Your task to perform on an android device: What is the news today? Image 0: 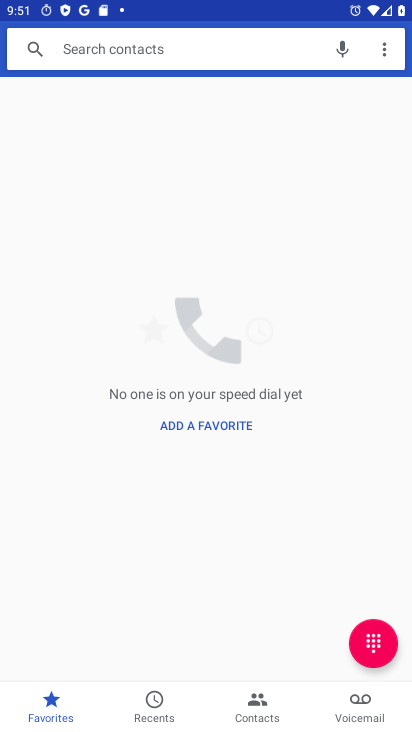
Step 0: press home button
Your task to perform on an android device: What is the news today? Image 1: 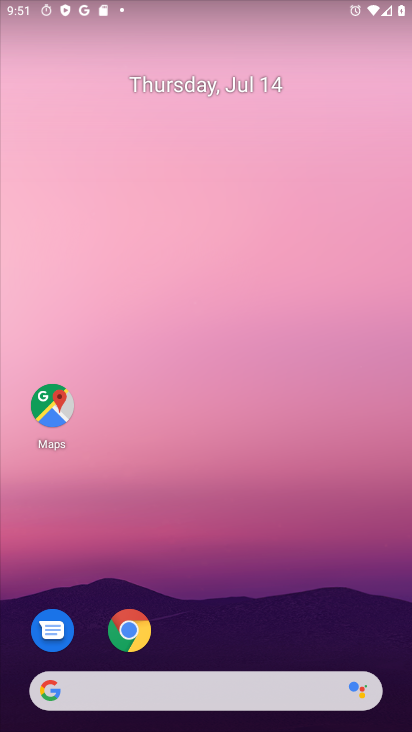
Step 1: click (130, 686)
Your task to perform on an android device: What is the news today? Image 2: 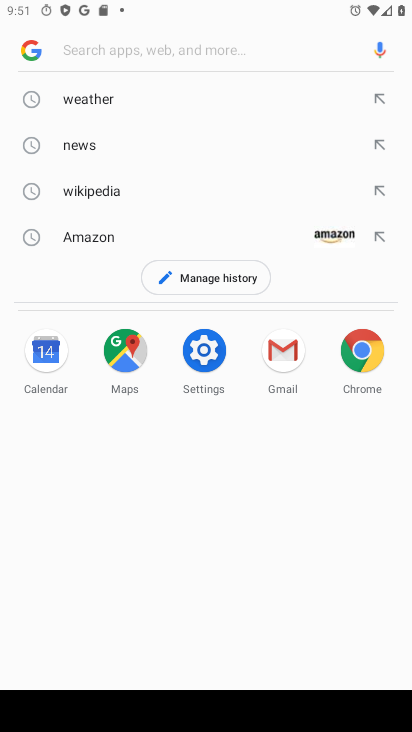
Step 2: type "What is the news today?"
Your task to perform on an android device: What is the news today? Image 3: 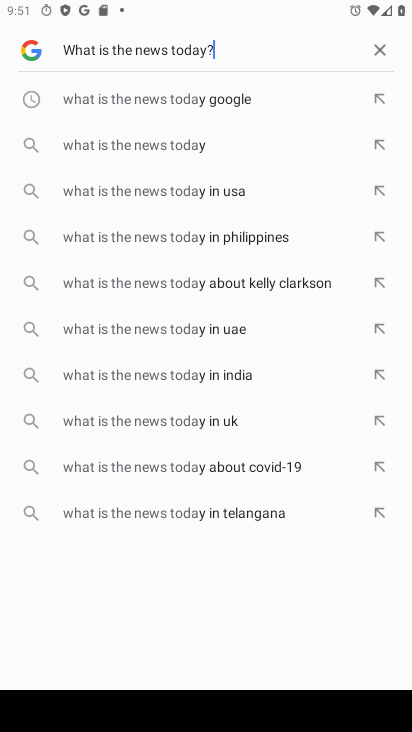
Step 3: type ""
Your task to perform on an android device: What is the news today? Image 4: 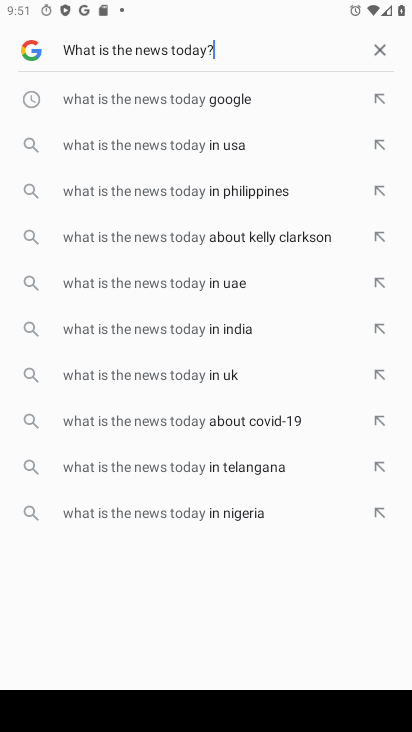
Step 4: task complete